Your task to perform on an android device: turn on improve location accuracy Image 0: 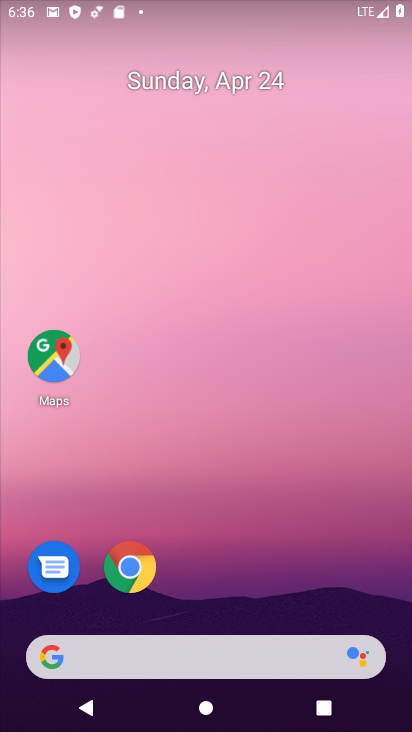
Step 0: drag from (330, 592) to (240, 125)
Your task to perform on an android device: turn on improve location accuracy Image 1: 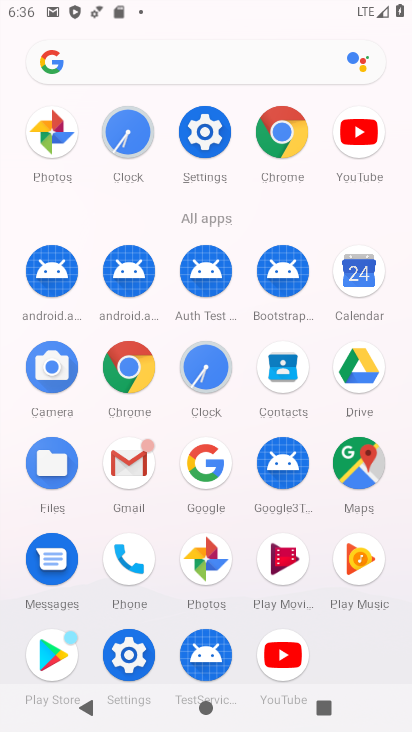
Step 1: click (127, 669)
Your task to perform on an android device: turn on improve location accuracy Image 2: 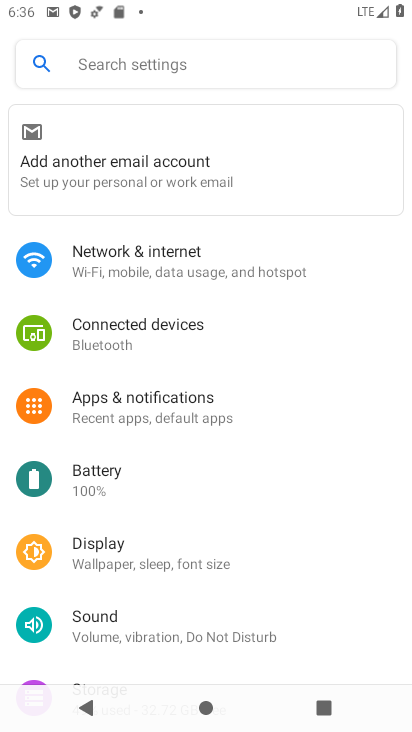
Step 2: drag from (168, 616) to (183, 194)
Your task to perform on an android device: turn on improve location accuracy Image 3: 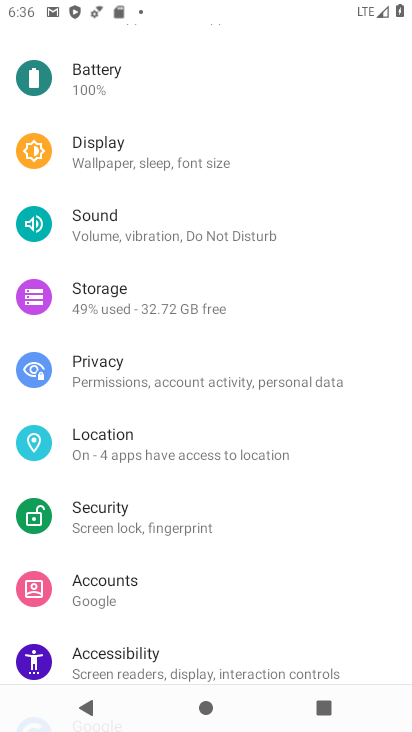
Step 3: click (141, 446)
Your task to perform on an android device: turn on improve location accuracy Image 4: 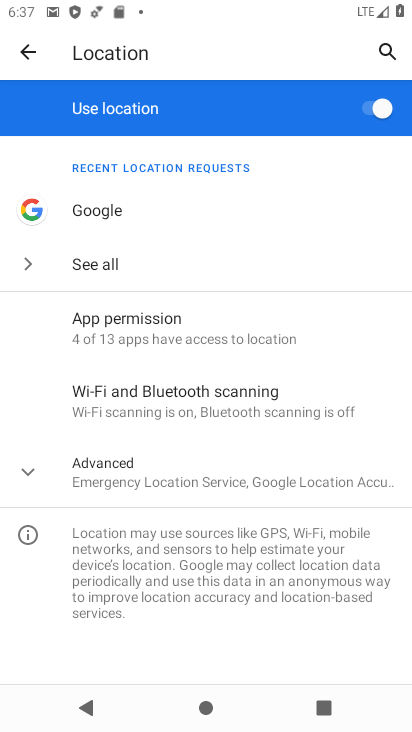
Step 4: click (127, 488)
Your task to perform on an android device: turn on improve location accuracy Image 5: 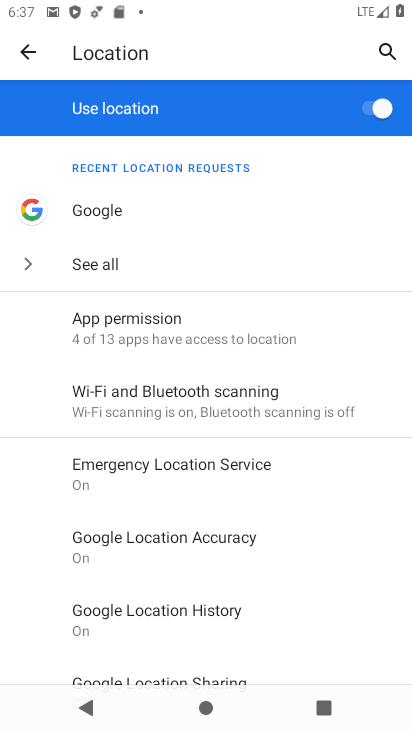
Step 5: click (239, 544)
Your task to perform on an android device: turn on improve location accuracy Image 6: 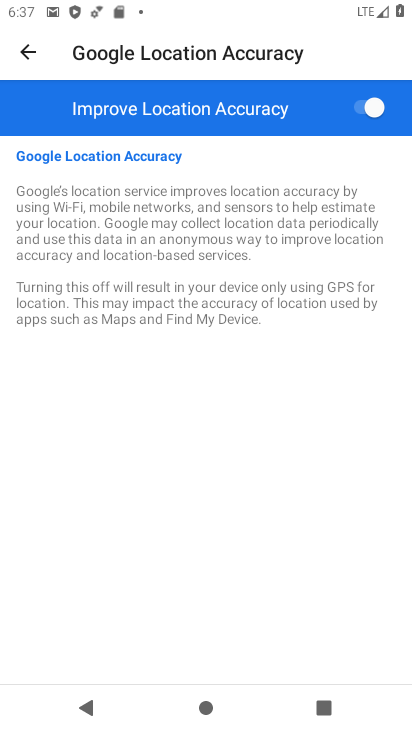
Step 6: task complete